Your task to perform on an android device: Open Youtube and go to the subscriptions tab Image 0: 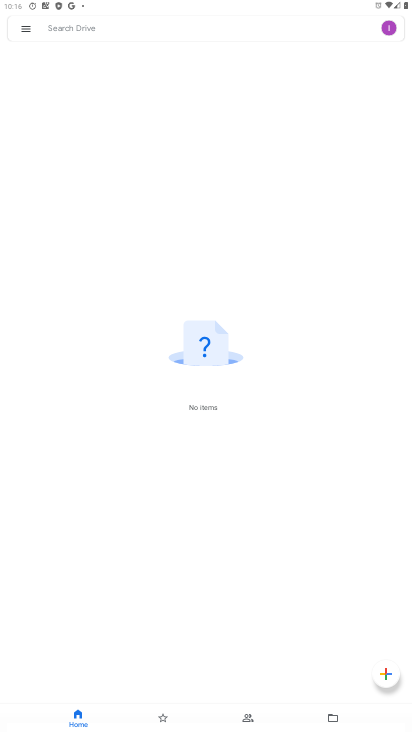
Step 0: press home button
Your task to perform on an android device: Open Youtube and go to the subscriptions tab Image 1: 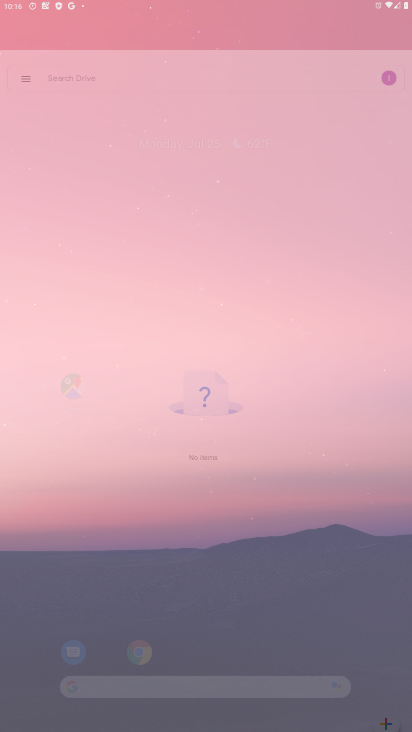
Step 1: drag from (150, 653) to (312, 66)
Your task to perform on an android device: Open Youtube and go to the subscriptions tab Image 2: 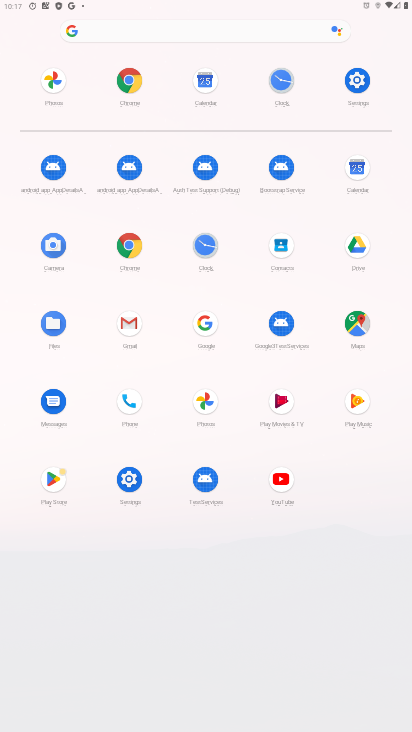
Step 2: click (276, 475)
Your task to perform on an android device: Open Youtube and go to the subscriptions tab Image 3: 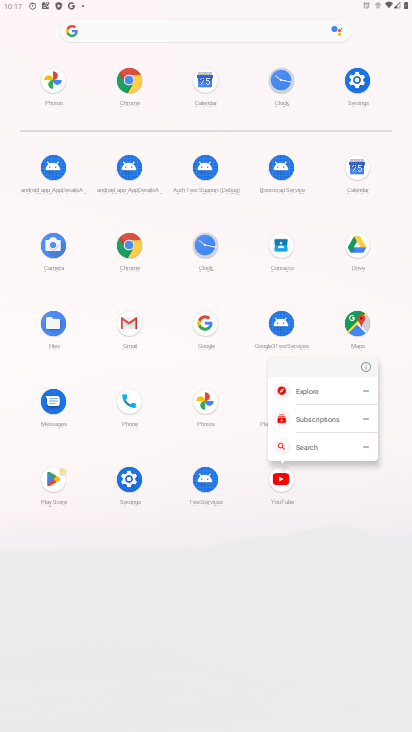
Step 3: click (366, 370)
Your task to perform on an android device: Open Youtube and go to the subscriptions tab Image 4: 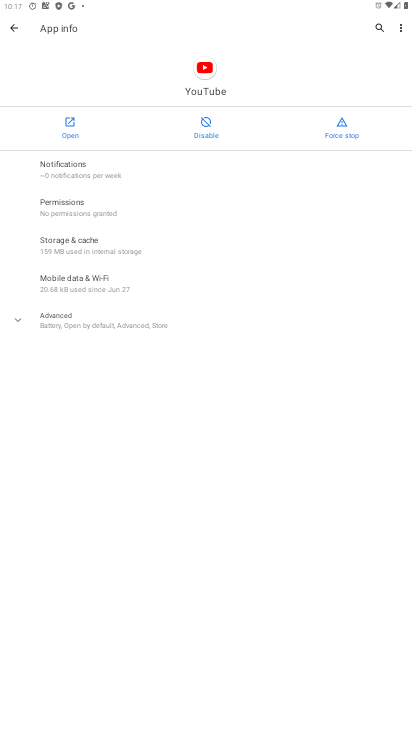
Step 4: click (66, 124)
Your task to perform on an android device: Open Youtube and go to the subscriptions tab Image 5: 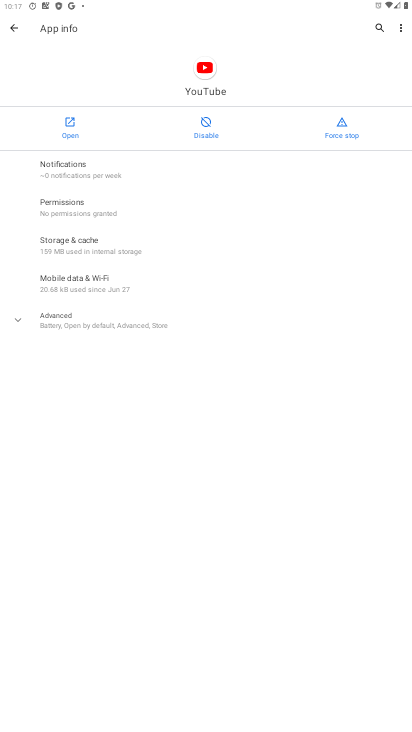
Step 5: click (65, 127)
Your task to perform on an android device: Open Youtube and go to the subscriptions tab Image 6: 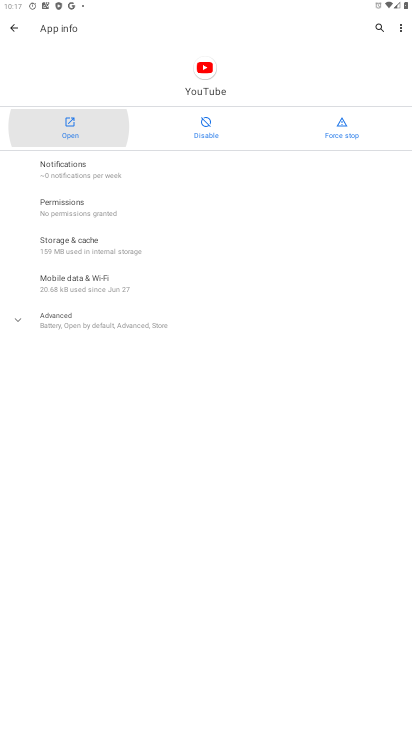
Step 6: click (65, 127)
Your task to perform on an android device: Open Youtube and go to the subscriptions tab Image 7: 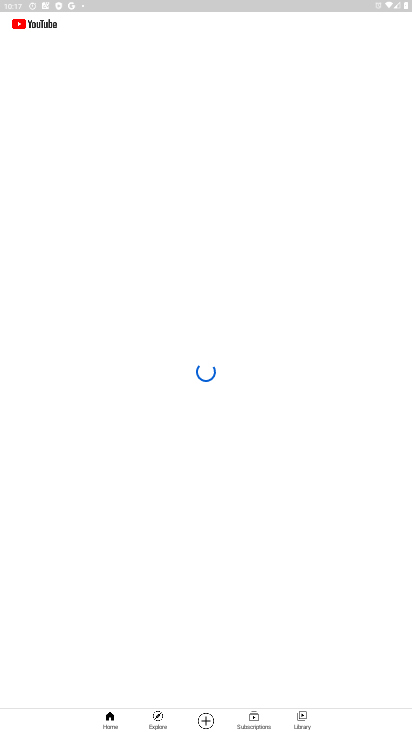
Step 7: drag from (198, 375) to (232, 265)
Your task to perform on an android device: Open Youtube and go to the subscriptions tab Image 8: 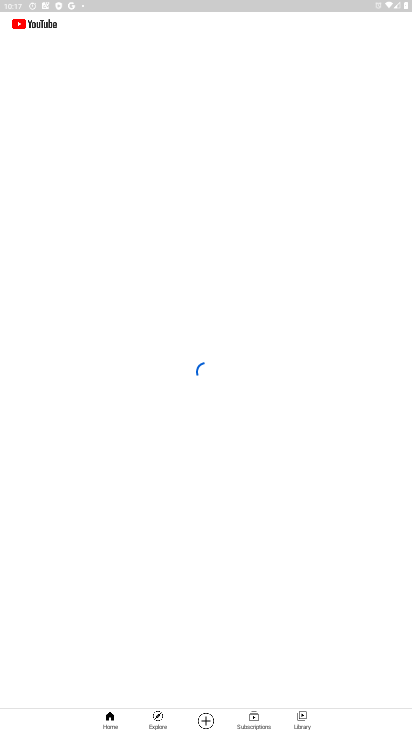
Step 8: drag from (238, 335) to (244, 614)
Your task to perform on an android device: Open Youtube and go to the subscriptions tab Image 9: 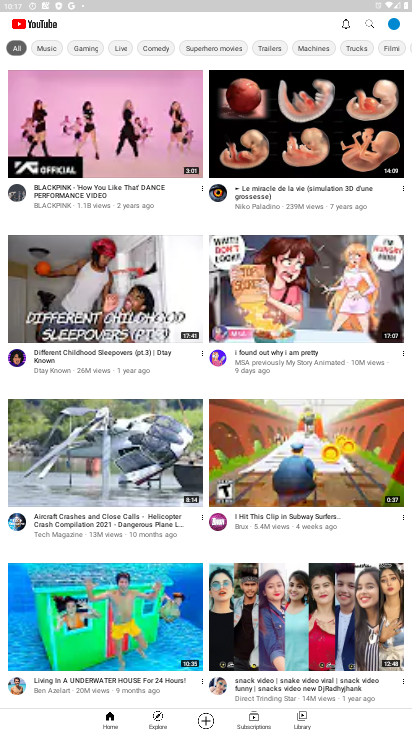
Step 9: click (247, 717)
Your task to perform on an android device: Open Youtube and go to the subscriptions tab Image 10: 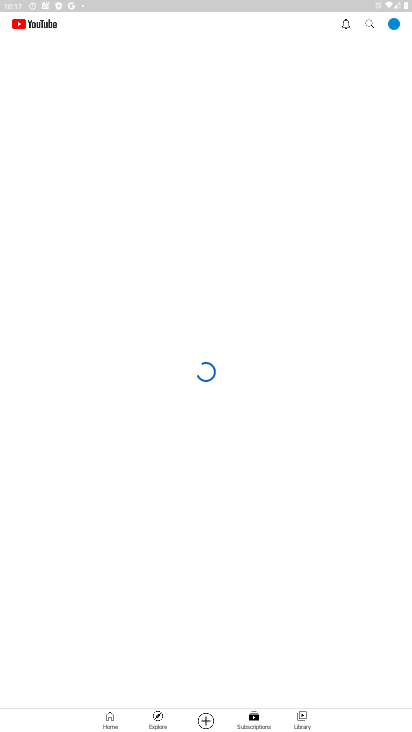
Step 10: task complete